Your task to perform on an android device: When is my next appointment? Image 0: 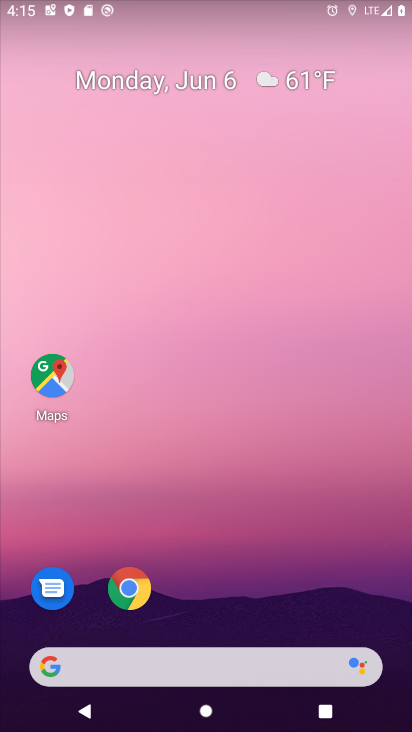
Step 0: drag from (251, 611) to (216, 262)
Your task to perform on an android device: When is my next appointment? Image 1: 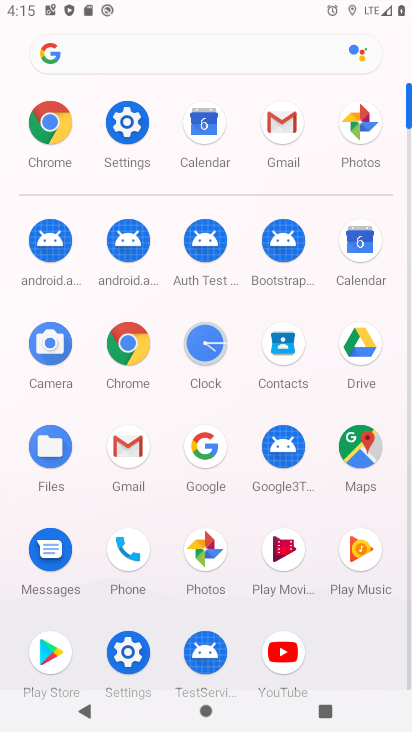
Step 1: click (369, 247)
Your task to perform on an android device: When is my next appointment? Image 2: 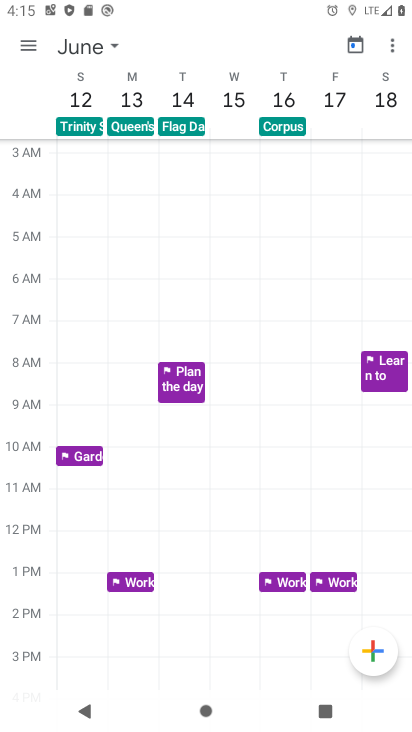
Step 2: click (34, 54)
Your task to perform on an android device: When is my next appointment? Image 3: 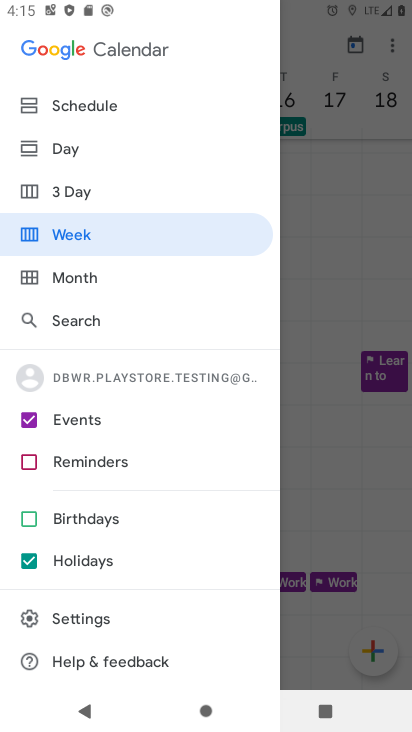
Step 3: click (80, 107)
Your task to perform on an android device: When is my next appointment? Image 4: 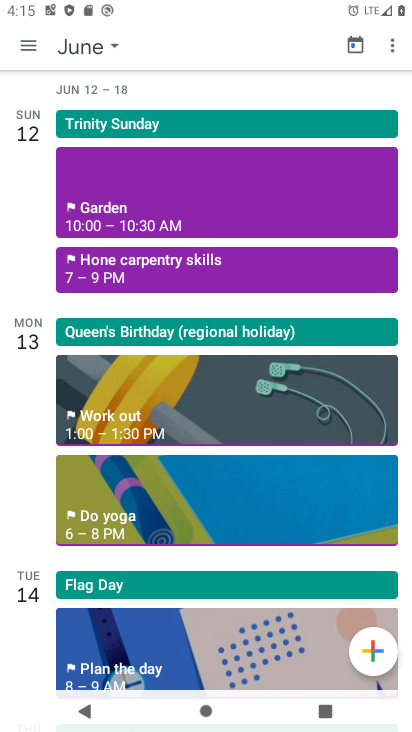
Step 4: click (100, 44)
Your task to perform on an android device: When is my next appointment? Image 5: 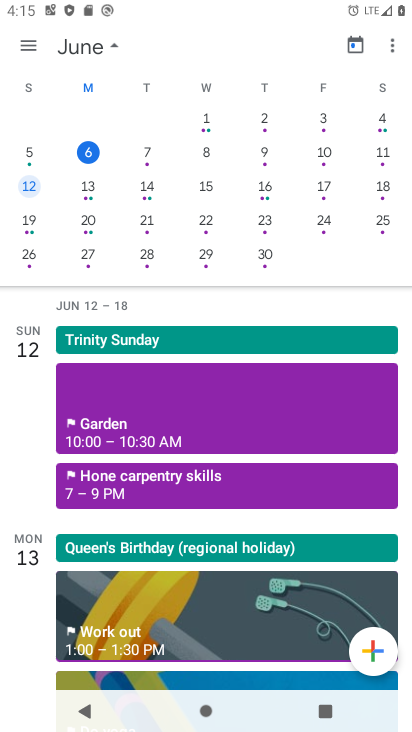
Step 5: click (91, 158)
Your task to perform on an android device: When is my next appointment? Image 6: 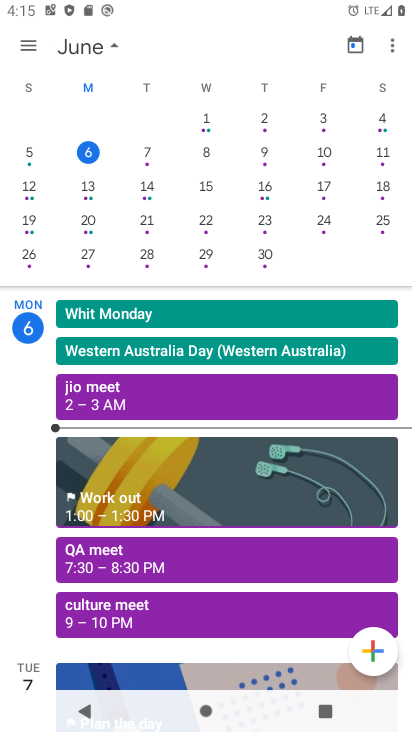
Step 6: task complete